Your task to perform on an android device: set the timer Image 0: 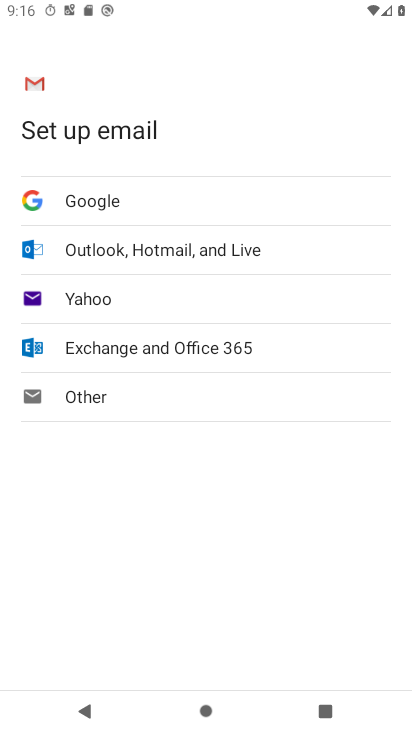
Step 0: press home button
Your task to perform on an android device: set the timer Image 1: 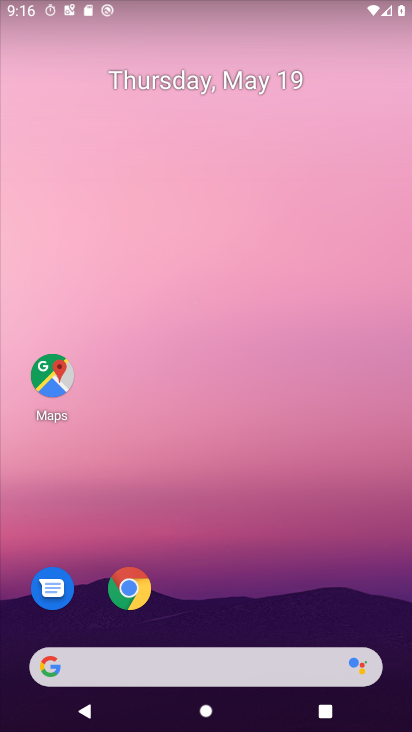
Step 1: drag from (234, 641) to (319, 163)
Your task to perform on an android device: set the timer Image 2: 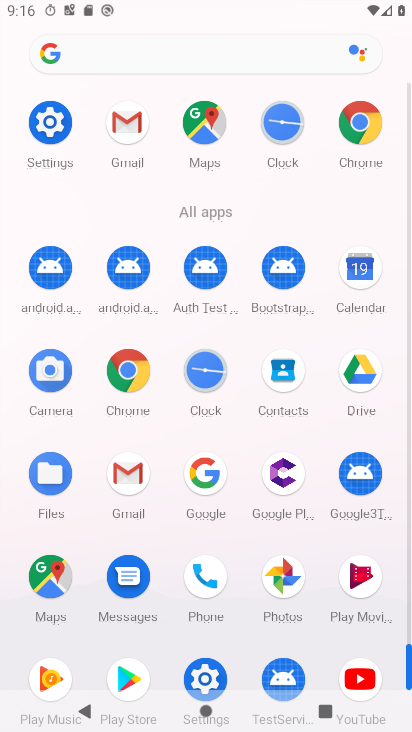
Step 2: click (293, 119)
Your task to perform on an android device: set the timer Image 3: 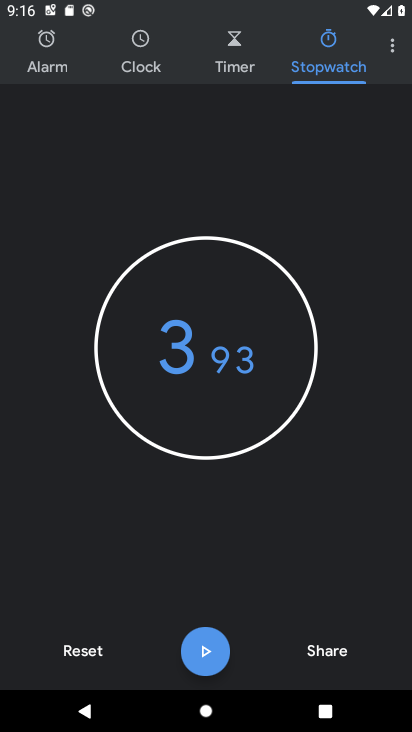
Step 3: click (237, 65)
Your task to perform on an android device: set the timer Image 4: 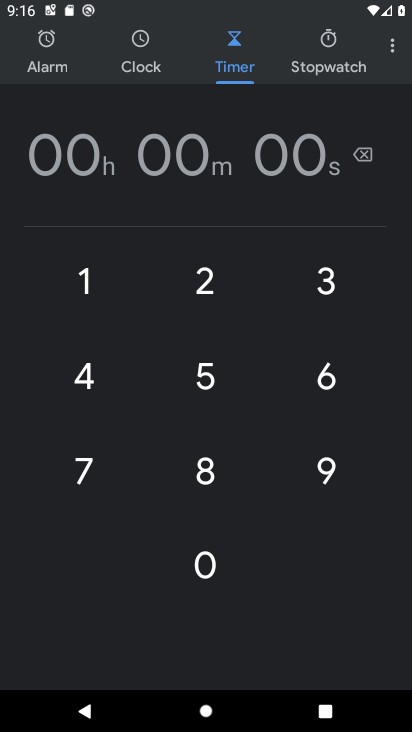
Step 4: click (91, 279)
Your task to perform on an android device: set the timer Image 5: 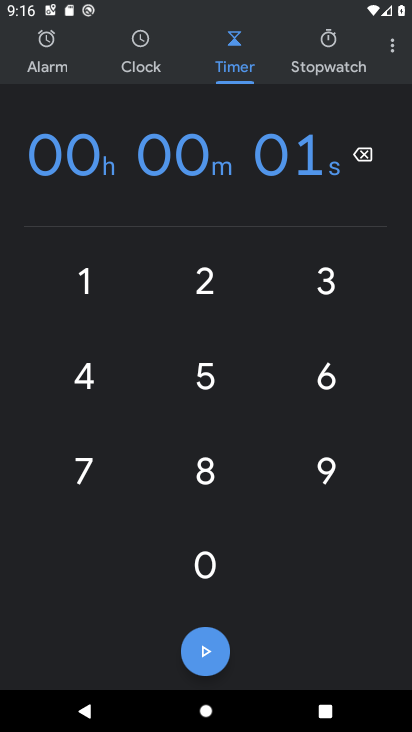
Step 5: click (91, 287)
Your task to perform on an android device: set the timer Image 6: 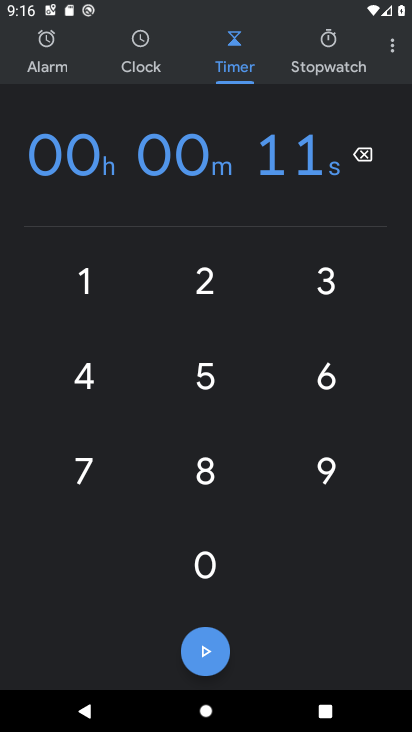
Step 6: click (202, 655)
Your task to perform on an android device: set the timer Image 7: 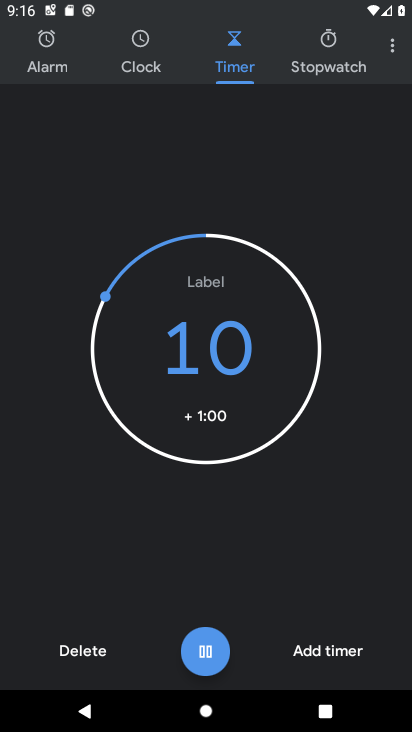
Step 7: click (208, 654)
Your task to perform on an android device: set the timer Image 8: 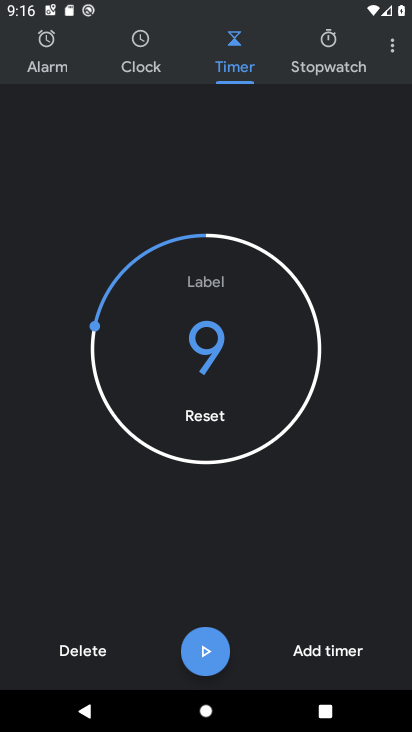
Step 8: task complete